Your task to perform on an android device: open device folders in google photos Image 0: 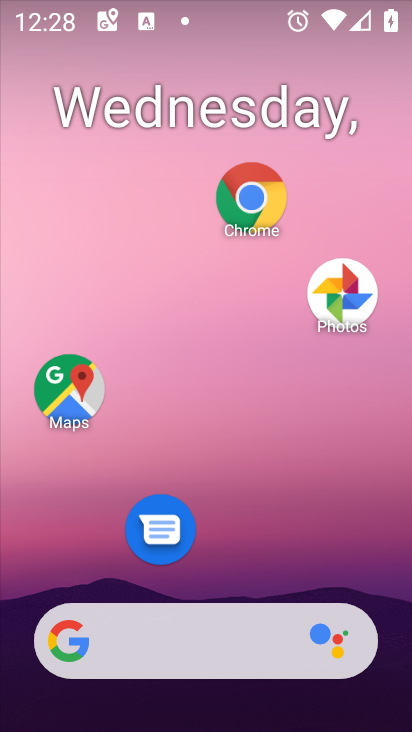
Step 0: drag from (191, 692) to (205, 260)
Your task to perform on an android device: open device folders in google photos Image 1: 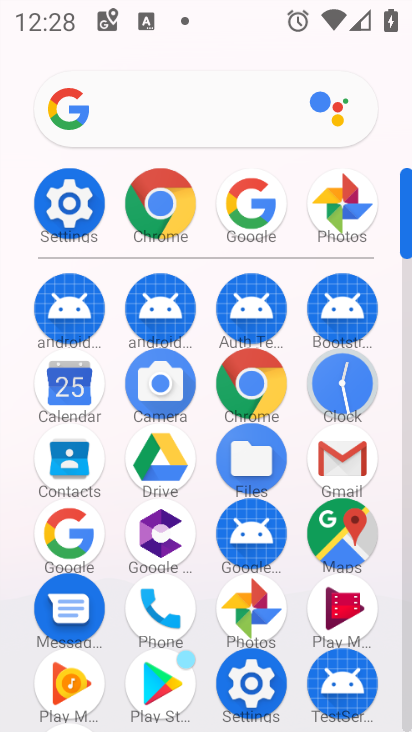
Step 1: click (246, 614)
Your task to perform on an android device: open device folders in google photos Image 2: 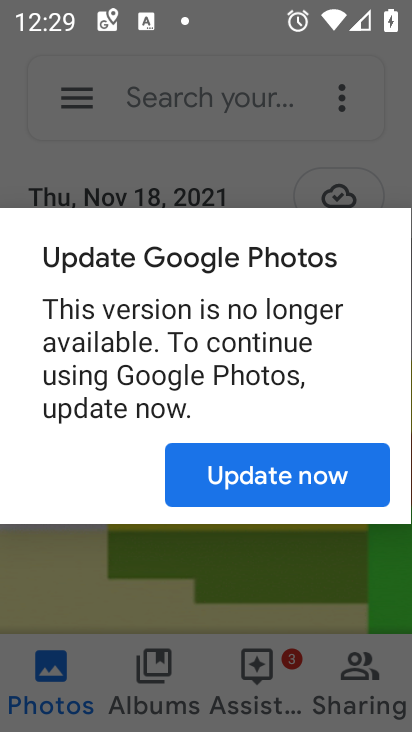
Step 2: task complete